Your task to perform on an android device: change the clock display to analog Image 0: 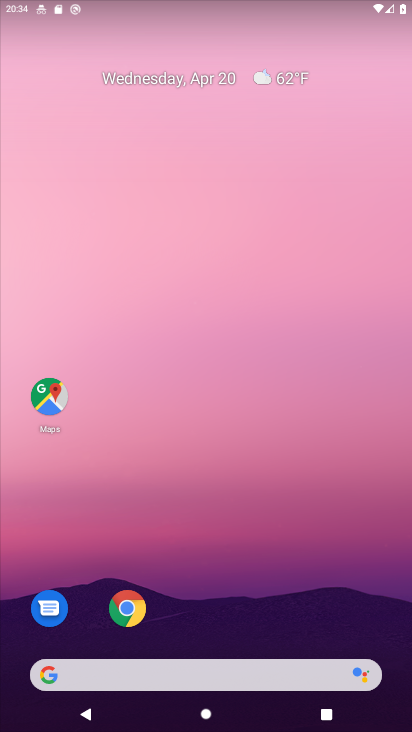
Step 0: drag from (265, 402) to (266, 33)
Your task to perform on an android device: change the clock display to analog Image 1: 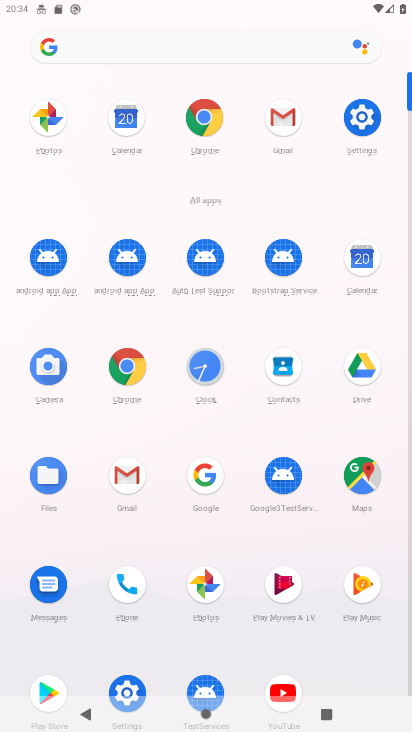
Step 1: click (197, 384)
Your task to perform on an android device: change the clock display to analog Image 2: 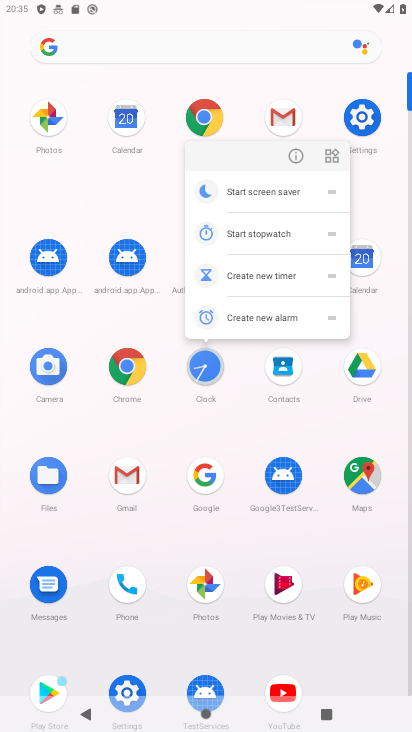
Step 2: click (200, 368)
Your task to perform on an android device: change the clock display to analog Image 3: 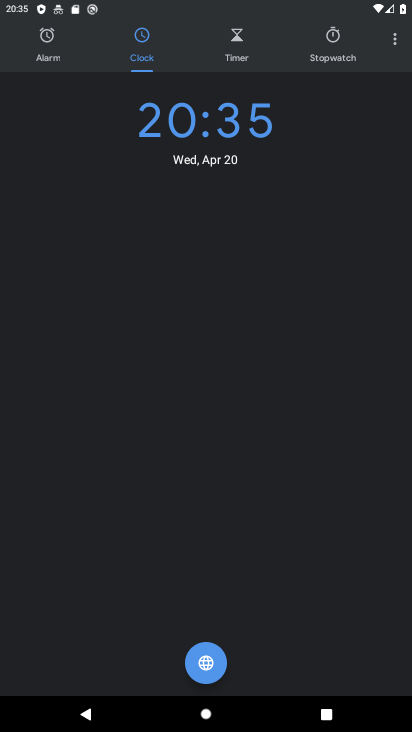
Step 3: click (399, 37)
Your task to perform on an android device: change the clock display to analog Image 4: 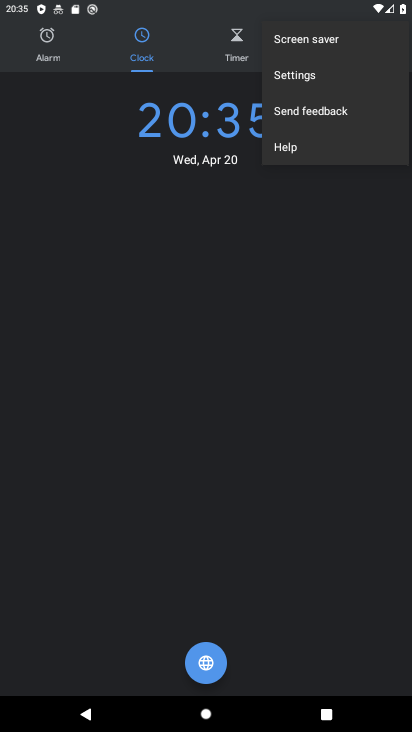
Step 4: click (289, 72)
Your task to perform on an android device: change the clock display to analog Image 5: 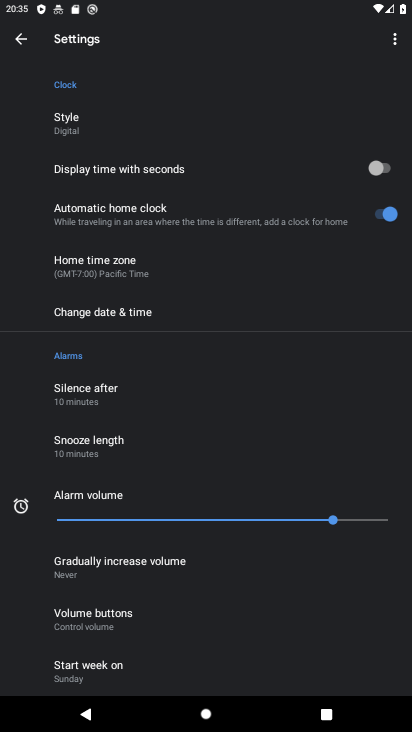
Step 5: click (78, 128)
Your task to perform on an android device: change the clock display to analog Image 6: 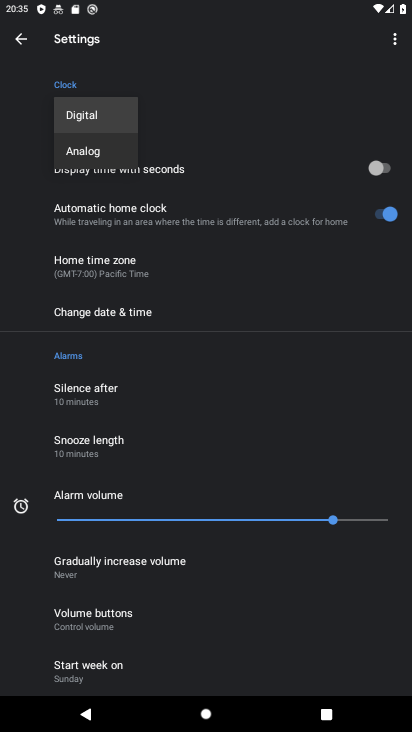
Step 6: click (99, 153)
Your task to perform on an android device: change the clock display to analog Image 7: 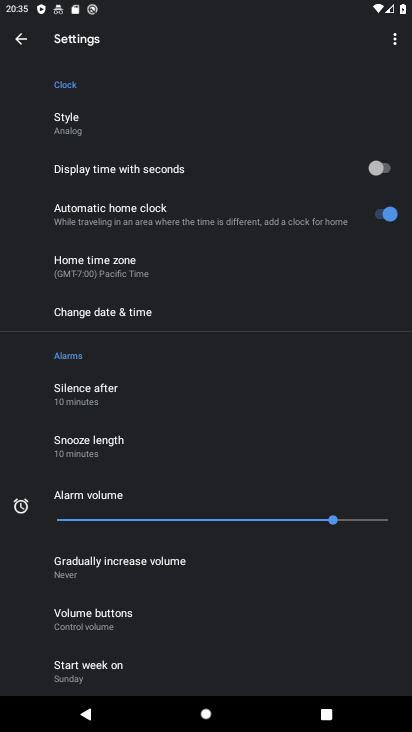
Step 7: task complete